Your task to perform on an android device: Open privacy settings Image 0: 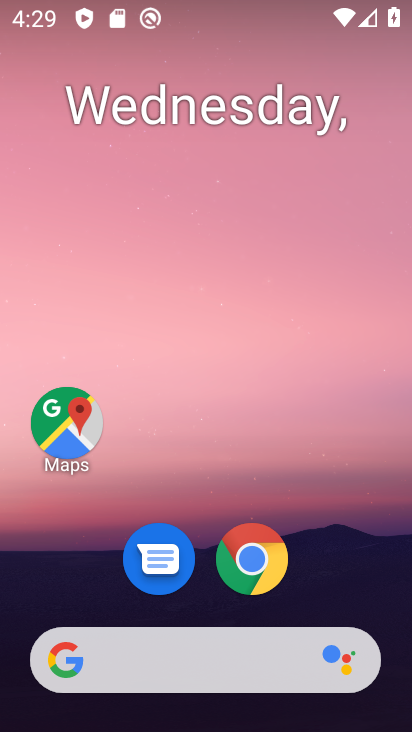
Step 0: drag from (381, 597) to (275, 40)
Your task to perform on an android device: Open privacy settings Image 1: 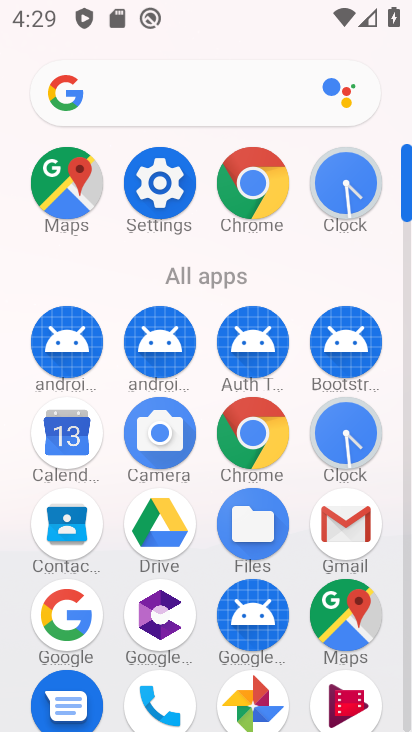
Step 1: click (156, 191)
Your task to perform on an android device: Open privacy settings Image 2: 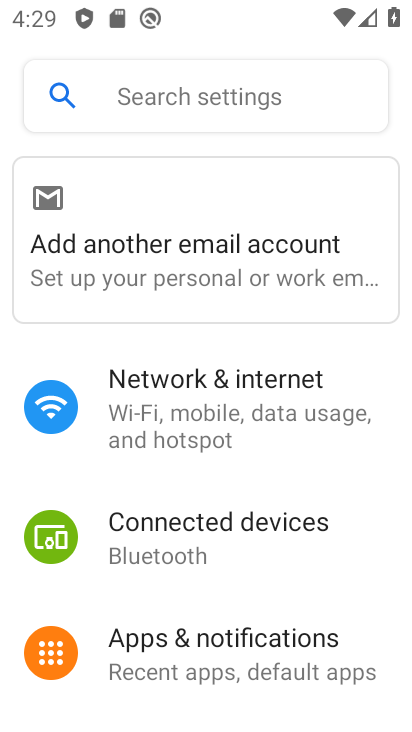
Step 2: drag from (371, 602) to (264, 187)
Your task to perform on an android device: Open privacy settings Image 3: 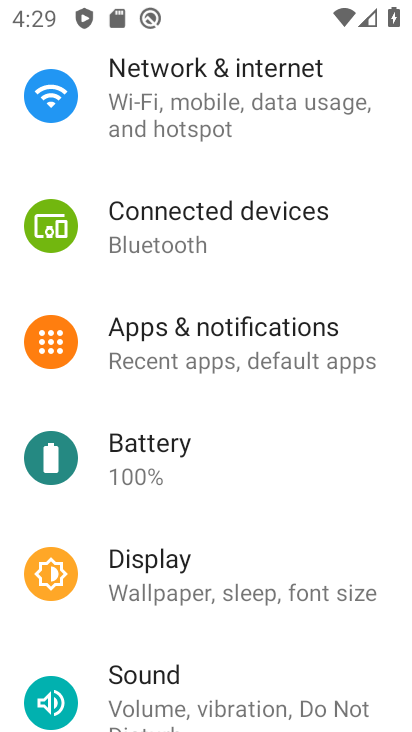
Step 3: drag from (320, 654) to (268, 219)
Your task to perform on an android device: Open privacy settings Image 4: 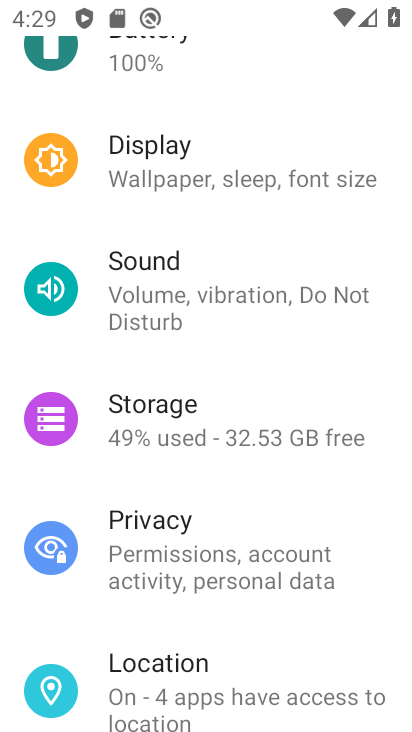
Step 4: click (297, 543)
Your task to perform on an android device: Open privacy settings Image 5: 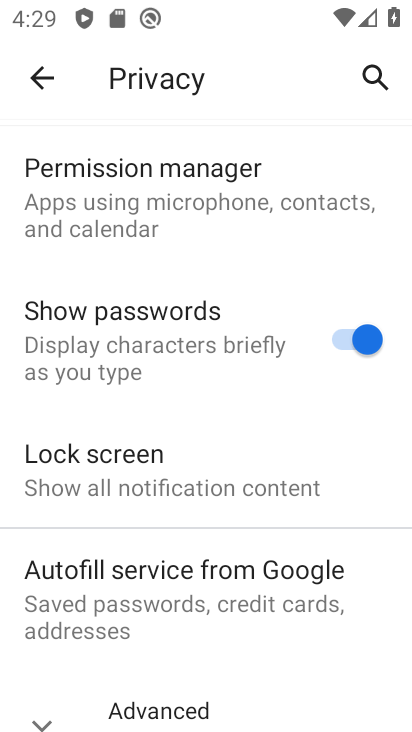
Step 5: task complete